Your task to perform on an android device: turn smart compose on in the gmail app Image 0: 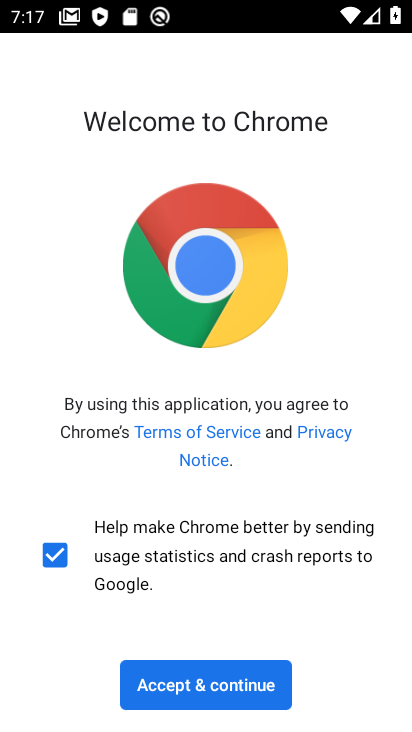
Step 0: press home button
Your task to perform on an android device: turn smart compose on in the gmail app Image 1: 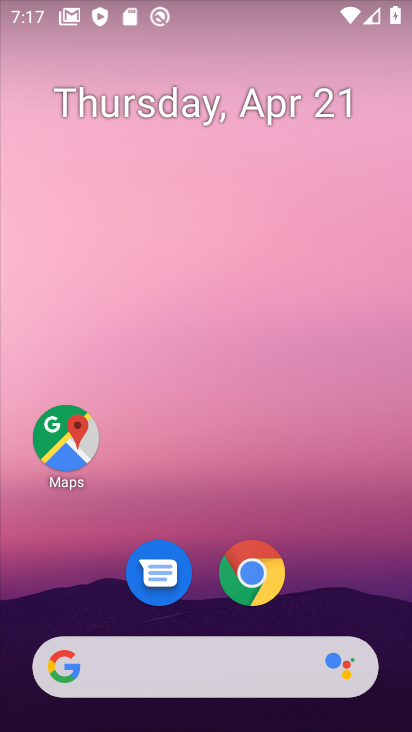
Step 1: drag from (336, 586) to (249, 49)
Your task to perform on an android device: turn smart compose on in the gmail app Image 2: 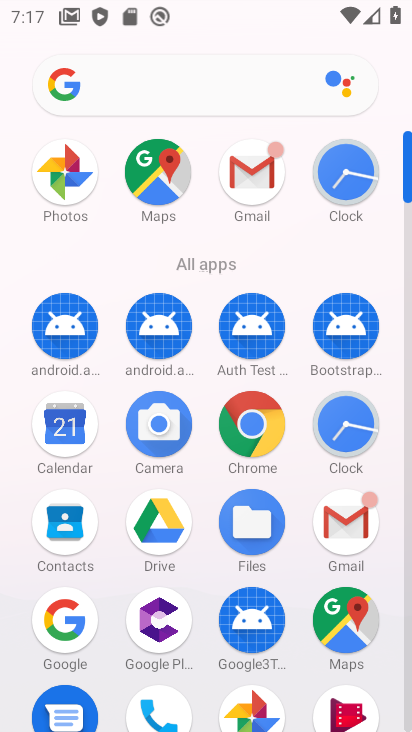
Step 2: click (263, 170)
Your task to perform on an android device: turn smart compose on in the gmail app Image 3: 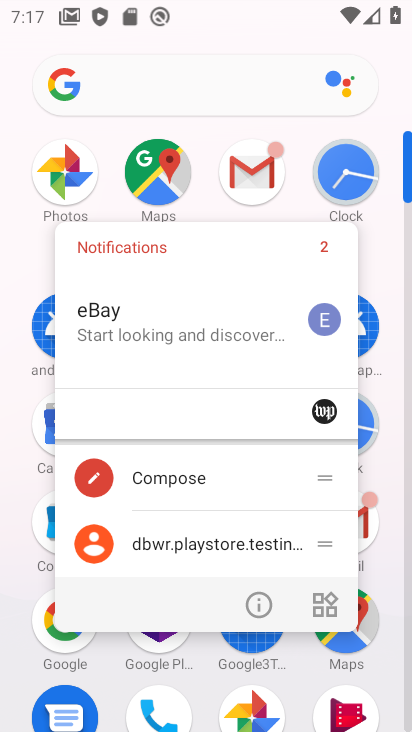
Step 3: click (263, 170)
Your task to perform on an android device: turn smart compose on in the gmail app Image 4: 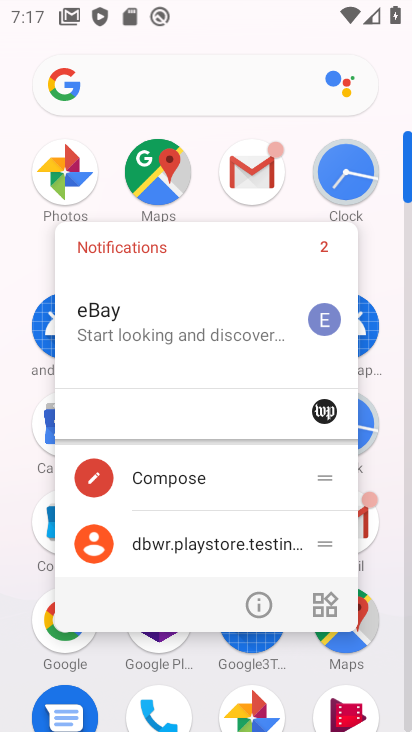
Step 4: click (263, 170)
Your task to perform on an android device: turn smart compose on in the gmail app Image 5: 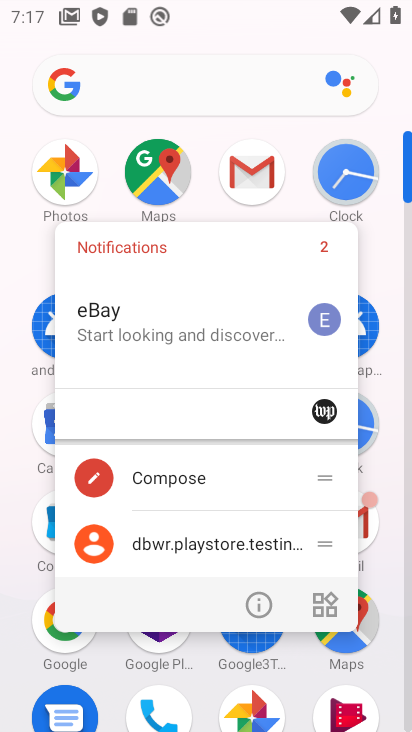
Step 5: click (263, 170)
Your task to perform on an android device: turn smart compose on in the gmail app Image 6: 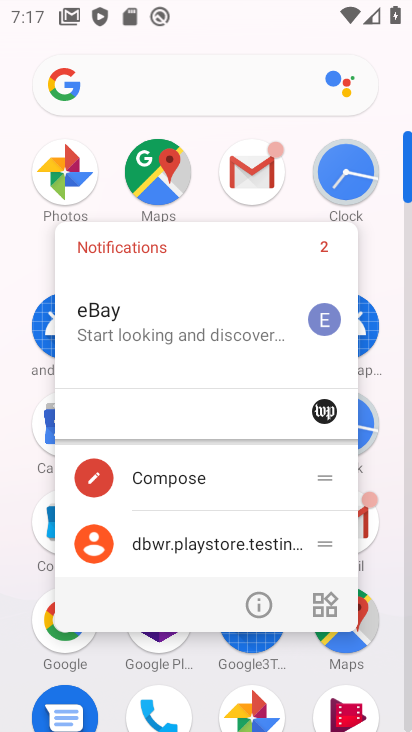
Step 6: click (249, 173)
Your task to perform on an android device: turn smart compose on in the gmail app Image 7: 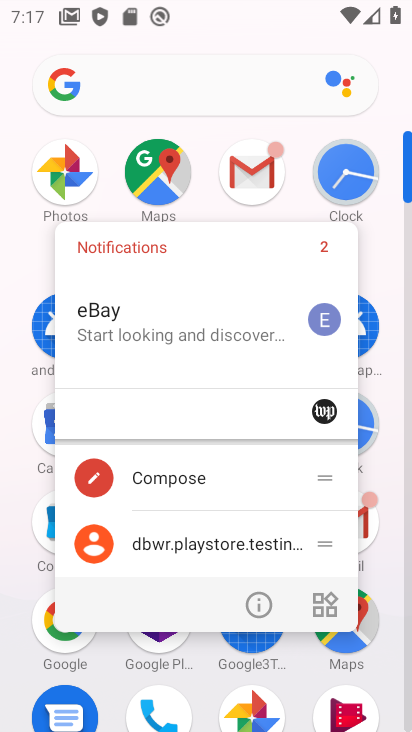
Step 7: click (246, 173)
Your task to perform on an android device: turn smart compose on in the gmail app Image 8: 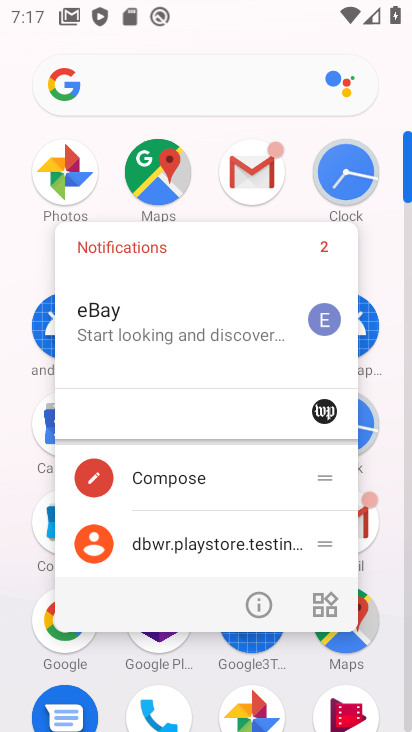
Step 8: click (246, 173)
Your task to perform on an android device: turn smart compose on in the gmail app Image 9: 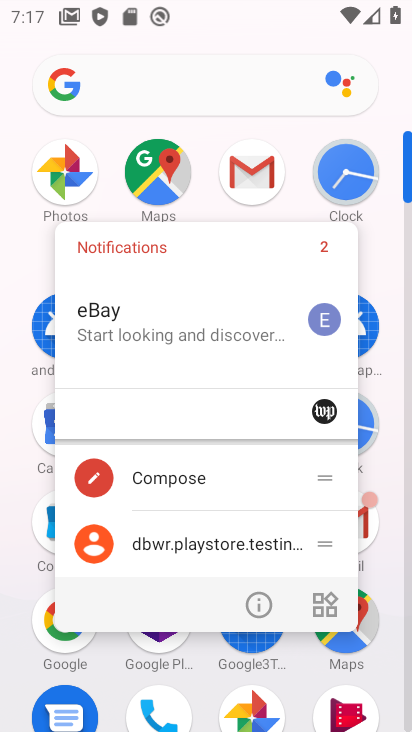
Step 9: click (246, 173)
Your task to perform on an android device: turn smart compose on in the gmail app Image 10: 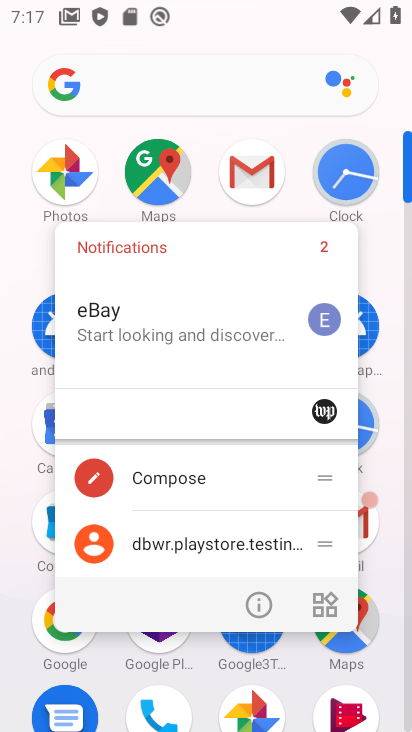
Step 10: click (246, 173)
Your task to perform on an android device: turn smart compose on in the gmail app Image 11: 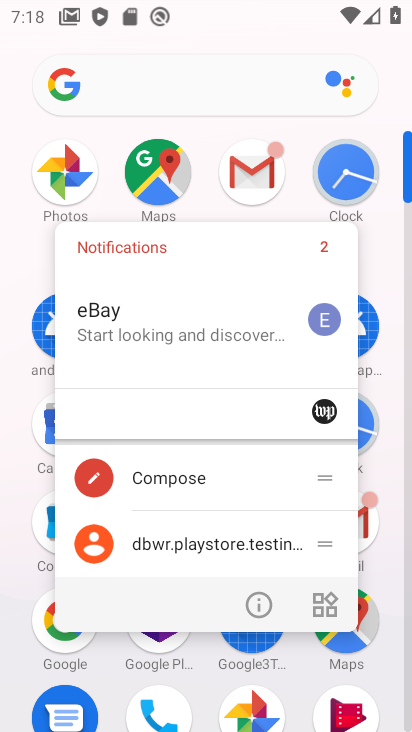
Step 11: click (246, 173)
Your task to perform on an android device: turn smart compose on in the gmail app Image 12: 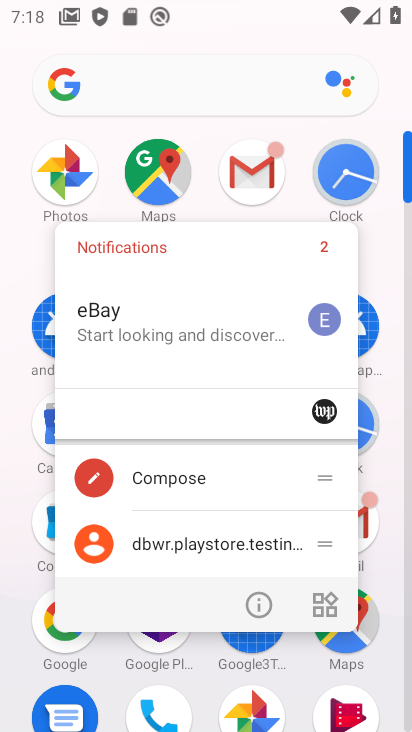
Step 12: click (246, 173)
Your task to perform on an android device: turn smart compose on in the gmail app Image 13: 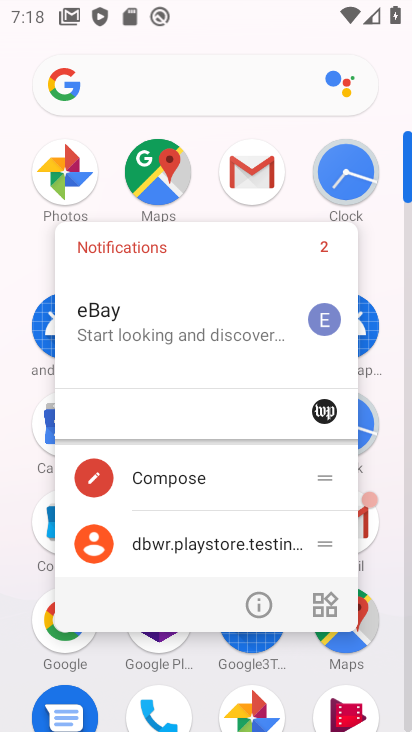
Step 13: click (246, 173)
Your task to perform on an android device: turn smart compose on in the gmail app Image 14: 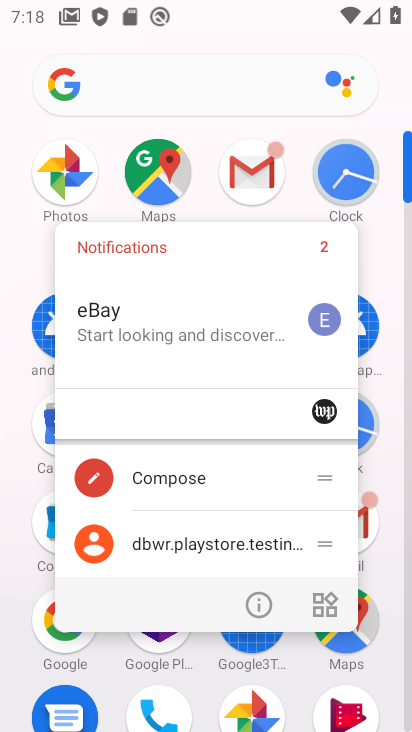
Step 14: click (246, 173)
Your task to perform on an android device: turn smart compose on in the gmail app Image 15: 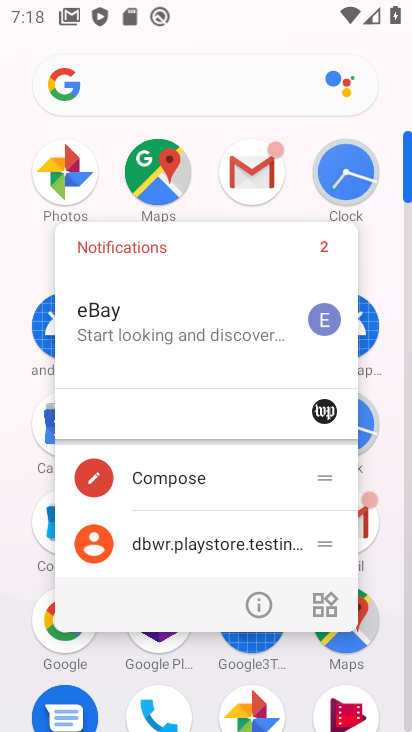
Step 15: click (246, 173)
Your task to perform on an android device: turn smart compose on in the gmail app Image 16: 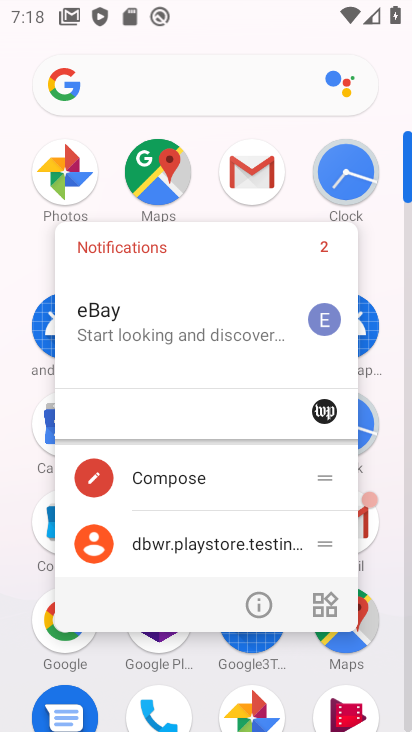
Step 16: click (246, 173)
Your task to perform on an android device: turn smart compose on in the gmail app Image 17: 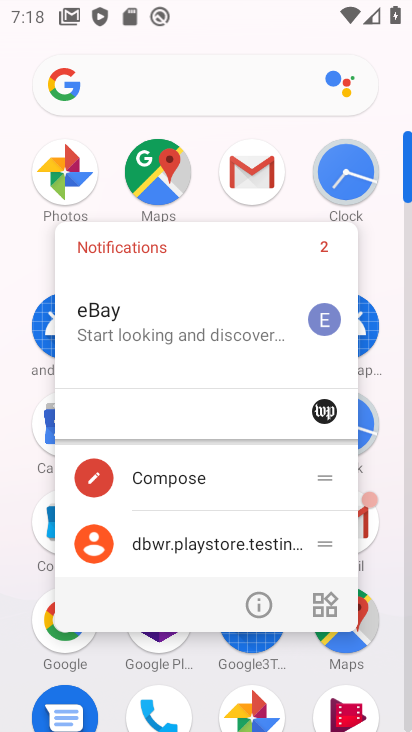
Step 17: click (246, 173)
Your task to perform on an android device: turn smart compose on in the gmail app Image 18: 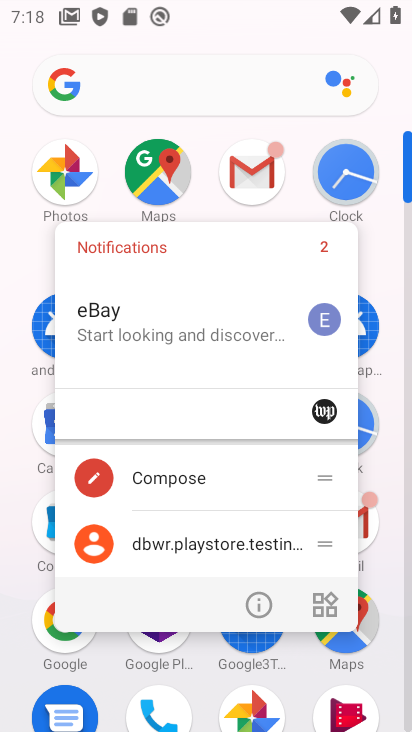
Step 18: click (246, 173)
Your task to perform on an android device: turn smart compose on in the gmail app Image 19: 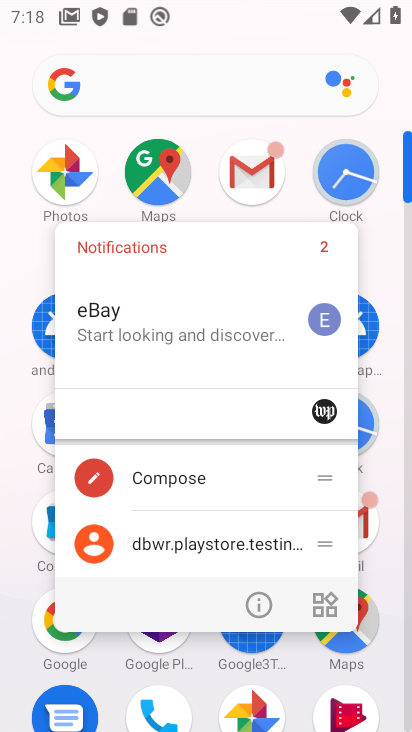
Step 19: click (246, 173)
Your task to perform on an android device: turn smart compose on in the gmail app Image 20: 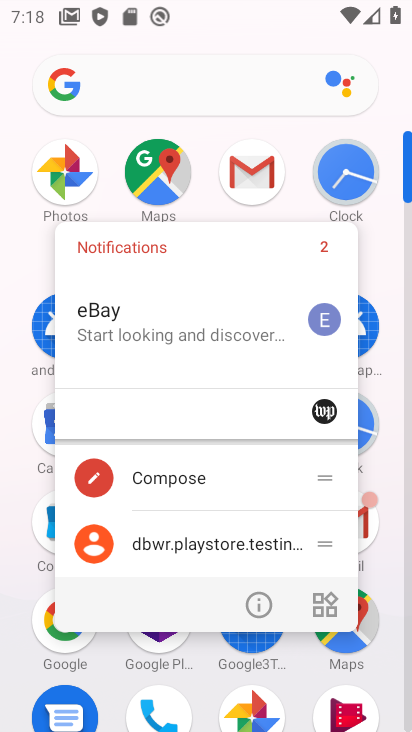
Step 20: click (246, 173)
Your task to perform on an android device: turn smart compose on in the gmail app Image 21: 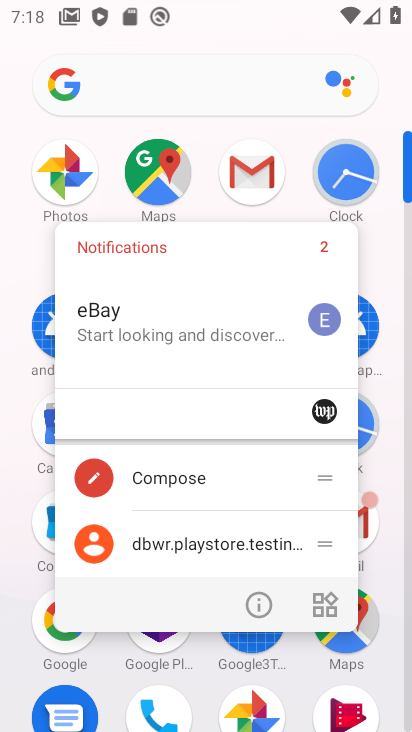
Step 21: click (246, 173)
Your task to perform on an android device: turn smart compose on in the gmail app Image 22: 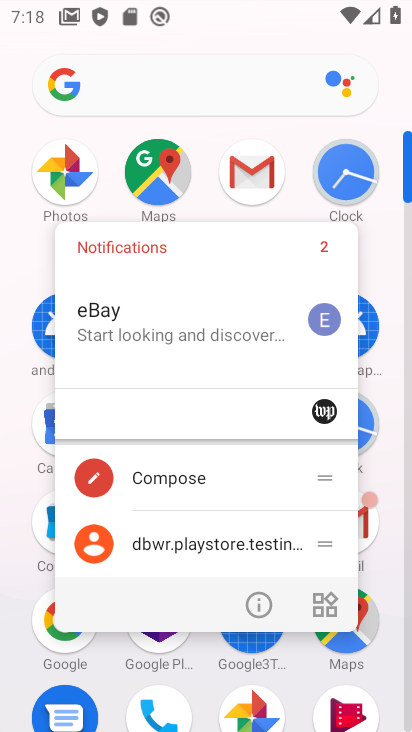
Step 22: click (246, 173)
Your task to perform on an android device: turn smart compose on in the gmail app Image 23: 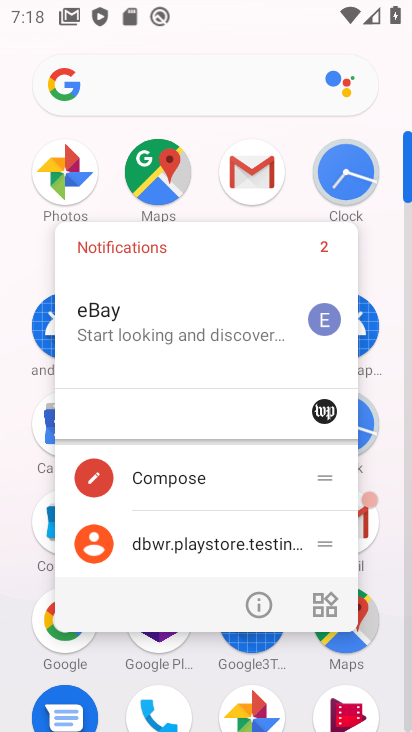
Step 23: click (246, 173)
Your task to perform on an android device: turn smart compose on in the gmail app Image 24: 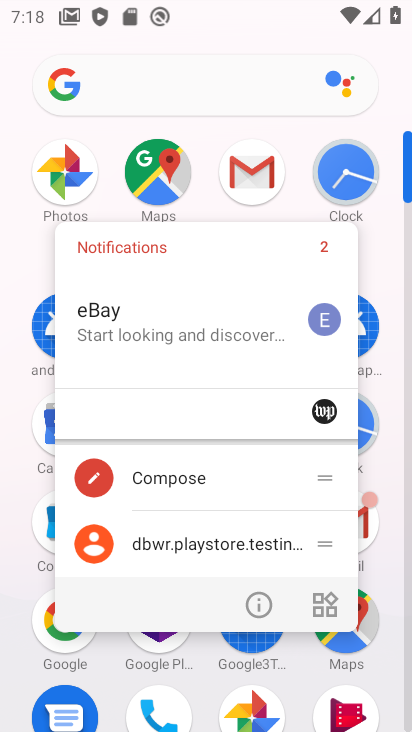
Step 24: click (246, 173)
Your task to perform on an android device: turn smart compose on in the gmail app Image 25: 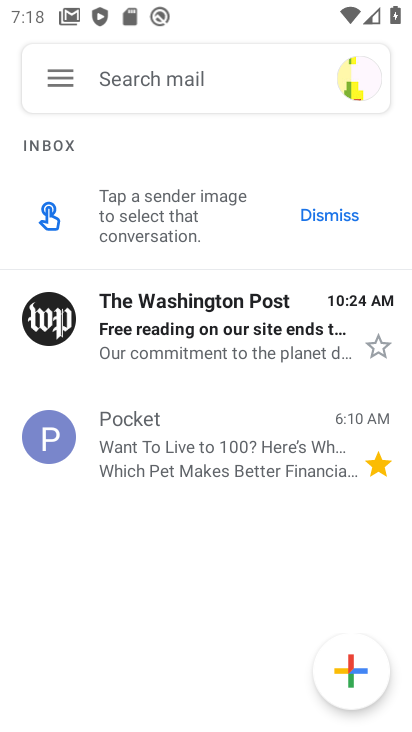
Step 25: click (69, 85)
Your task to perform on an android device: turn smart compose on in the gmail app Image 26: 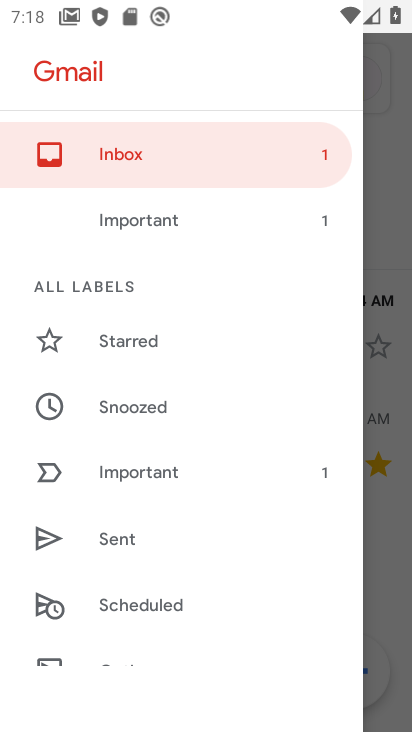
Step 26: drag from (206, 519) to (246, 169)
Your task to perform on an android device: turn smart compose on in the gmail app Image 27: 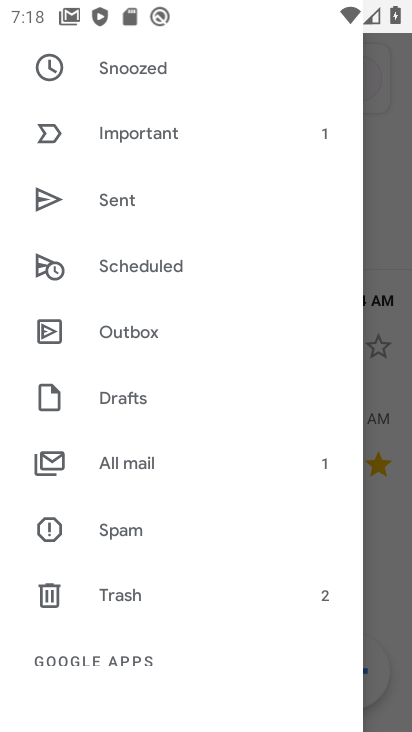
Step 27: drag from (209, 595) to (206, 129)
Your task to perform on an android device: turn smart compose on in the gmail app Image 28: 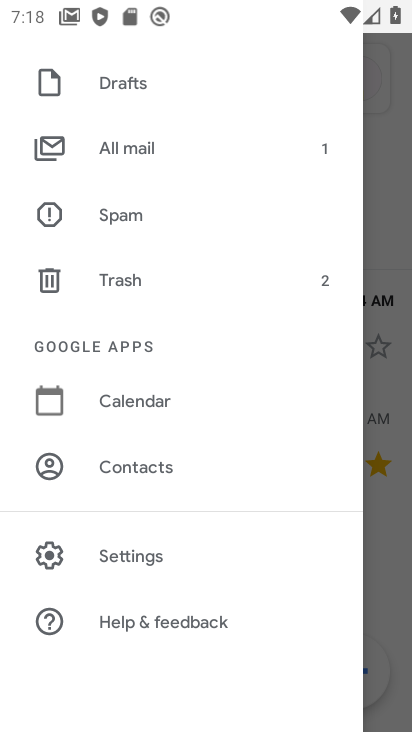
Step 28: click (135, 563)
Your task to perform on an android device: turn smart compose on in the gmail app Image 29: 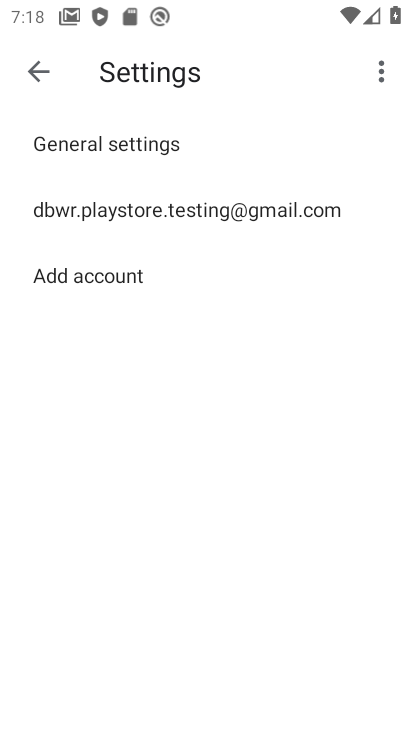
Step 29: click (119, 208)
Your task to perform on an android device: turn smart compose on in the gmail app Image 30: 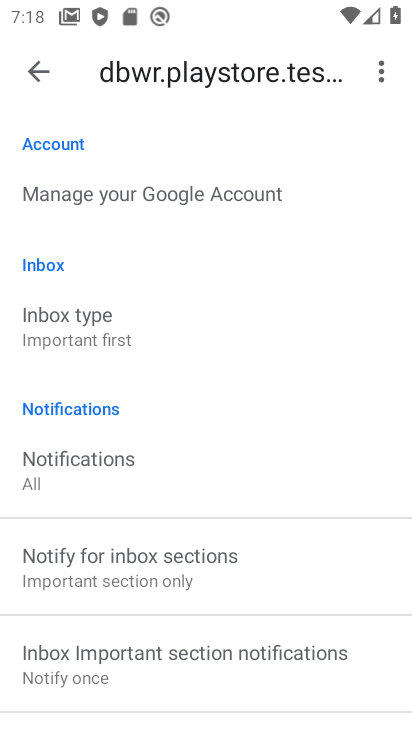
Step 30: drag from (128, 586) to (158, 176)
Your task to perform on an android device: turn smart compose on in the gmail app Image 31: 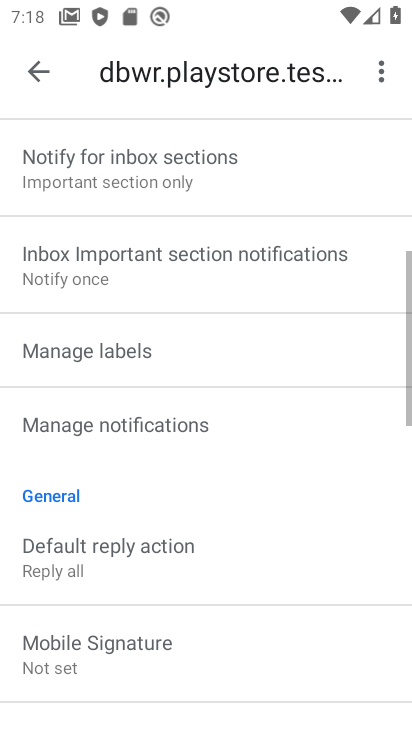
Step 31: drag from (218, 600) to (309, 221)
Your task to perform on an android device: turn smart compose on in the gmail app Image 32: 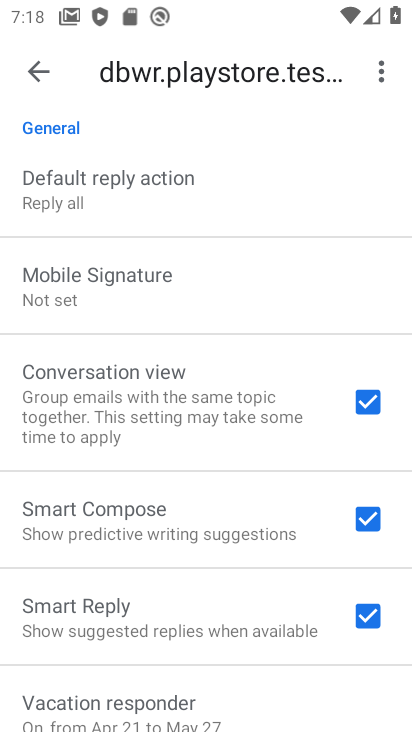
Step 32: drag from (242, 614) to (278, 477)
Your task to perform on an android device: turn smart compose on in the gmail app Image 33: 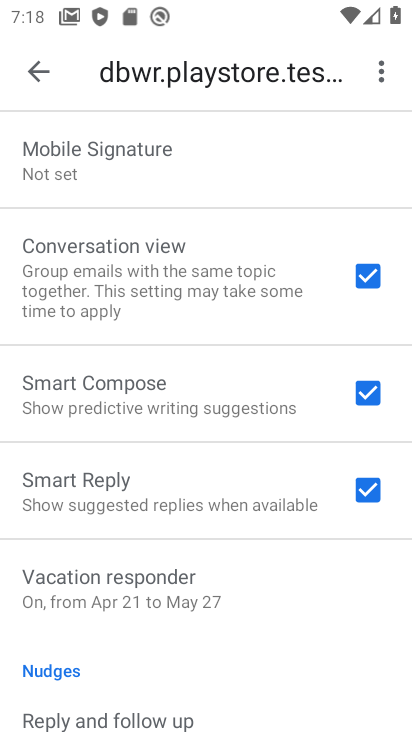
Step 33: click (367, 400)
Your task to perform on an android device: turn smart compose on in the gmail app Image 34: 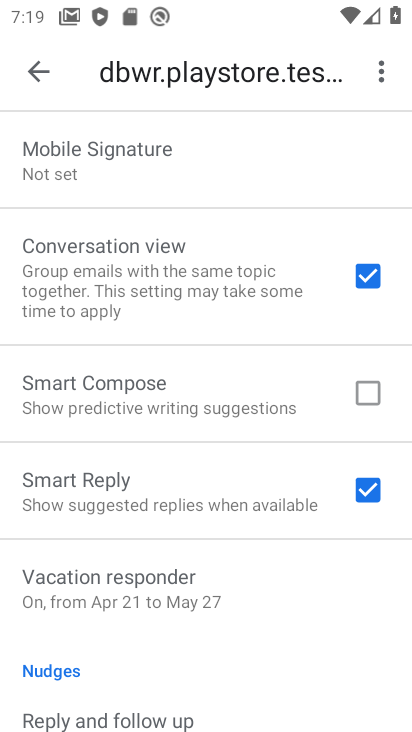
Step 34: click (367, 400)
Your task to perform on an android device: turn smart compose on in the gmail app Image 35: 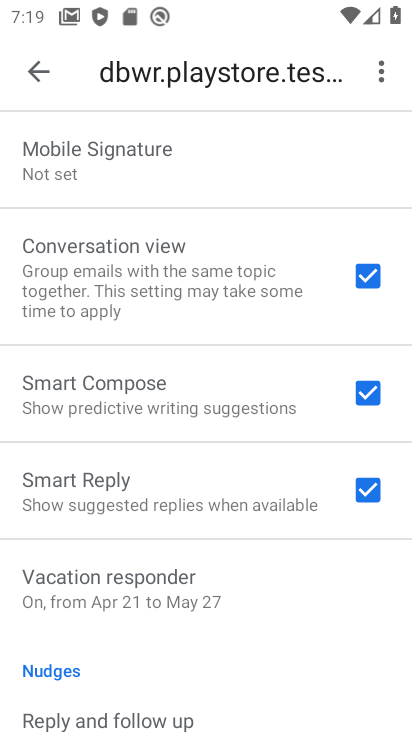
Step 35: task complete